Your task to perform on an android device: find which apps use the phone's location Image 0: 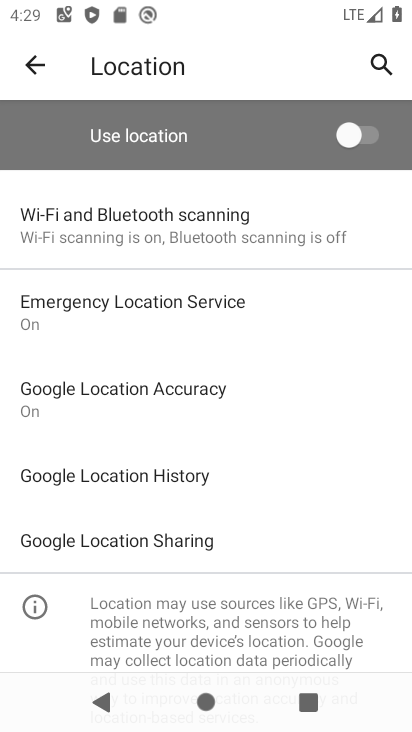
Step 0: press home button
Your task to perform on an android device: find which apps use the phone's location Image 1: 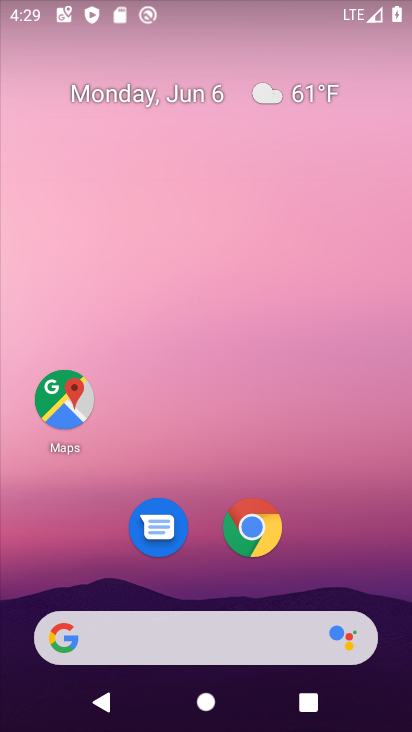
Step 1: click (104, 625)
Your task to perform on an android device: find which apps use the phone's location Image 2: 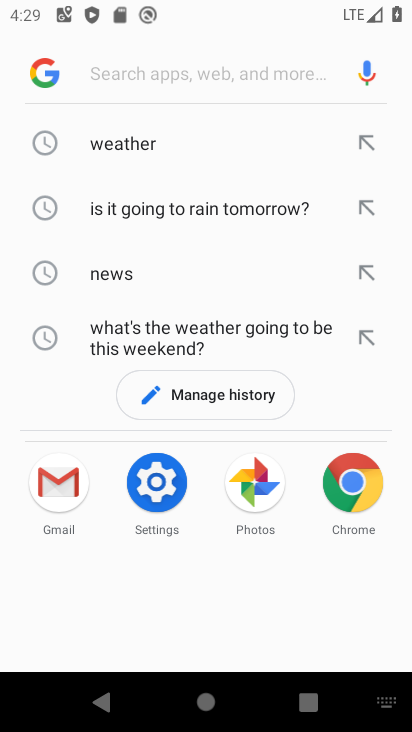
Step 2: type "which app use the phone location"
Your task to perform on an android device: find which apps use the phone's location Image 3: 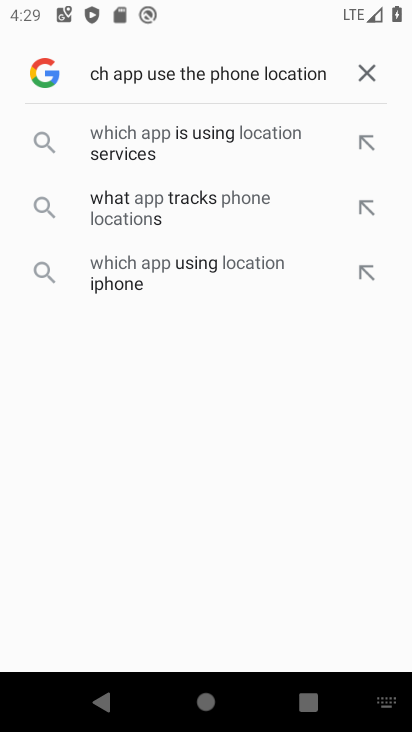
Step 3: click (248, 206)
Your task to perform on an android device: find which apps use the phone's location Image 4: 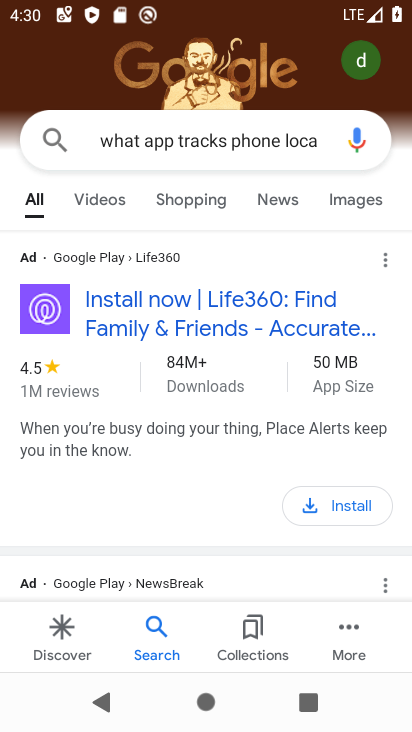
Step 4: task complete